Your task to perform on an android device: change keyboard looks Image 0: 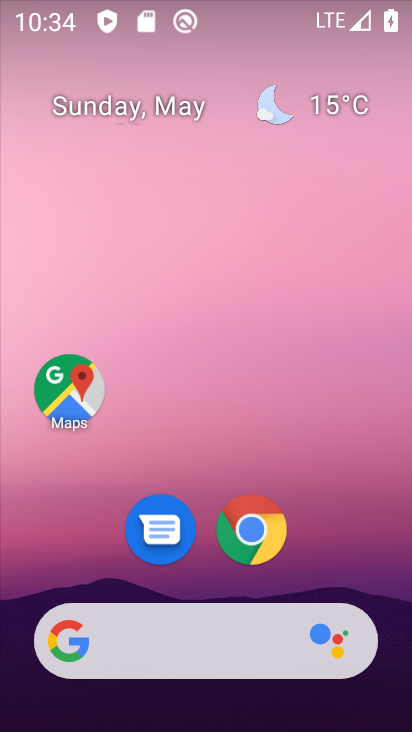
Step 0: drag from (246, 564) to (269, 26)
Your task to perform on an android device: change keyboard looks Image 1: 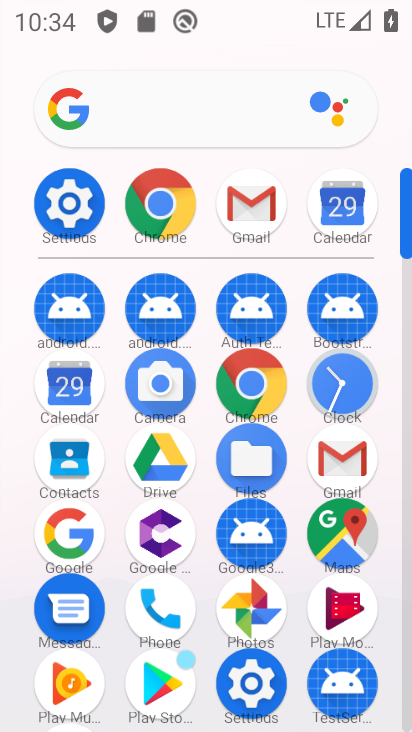
Step 1: click (53, 213)
Your task to perform on an android device: change keyboard looks Image 2: 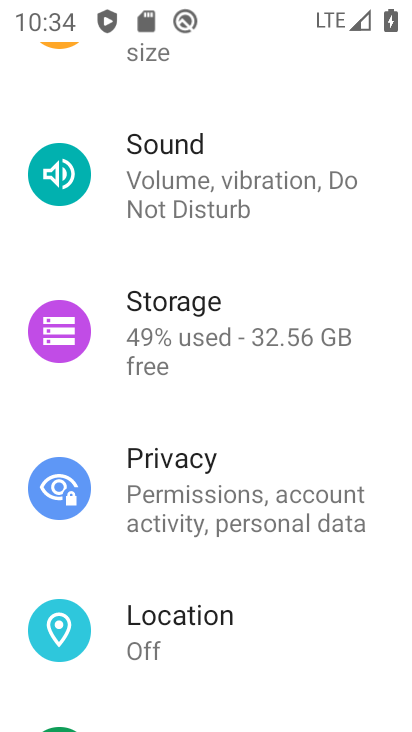
Step 2: drag from (155, 474) to (178, 99)
Your task to perform on an android device: change keyboard looks Image 3: 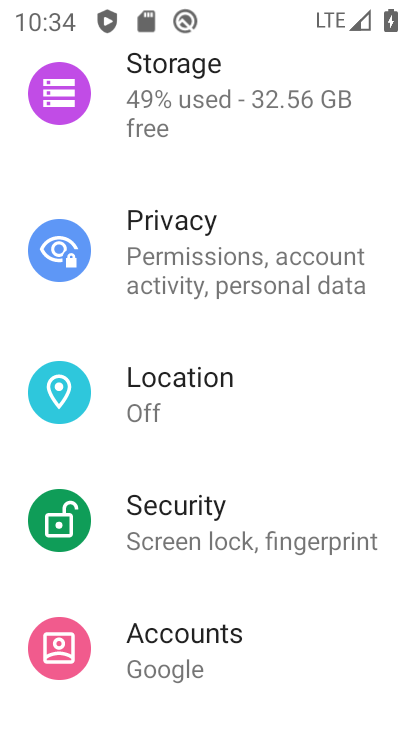
Step 3: drag from (156, 623) to (195, 68)
Your task to perform on an android device: change keyboard looks Image 4: 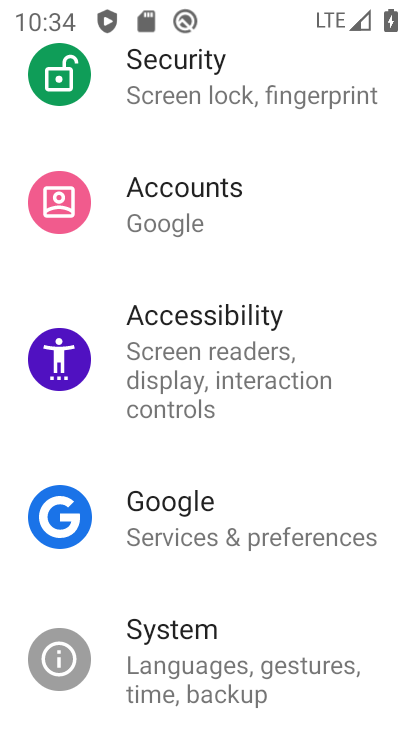
Step 4: click (187, 660)
Your task to perform on an android device: change keyboard looks Image 5: 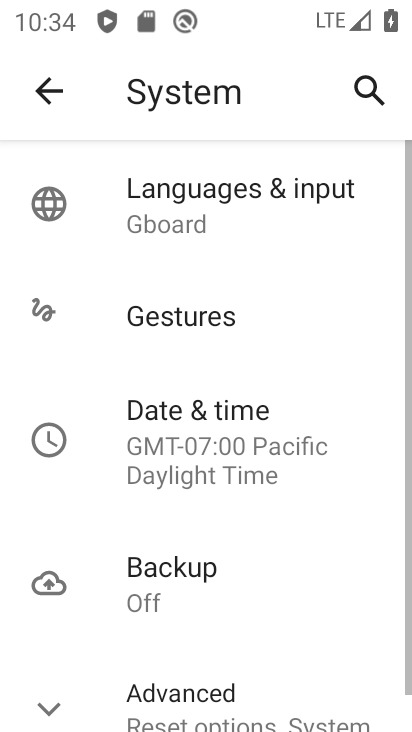
Step 5: click (181, 182)
Your task to perform on an android device: change keyboard looks Image 6: 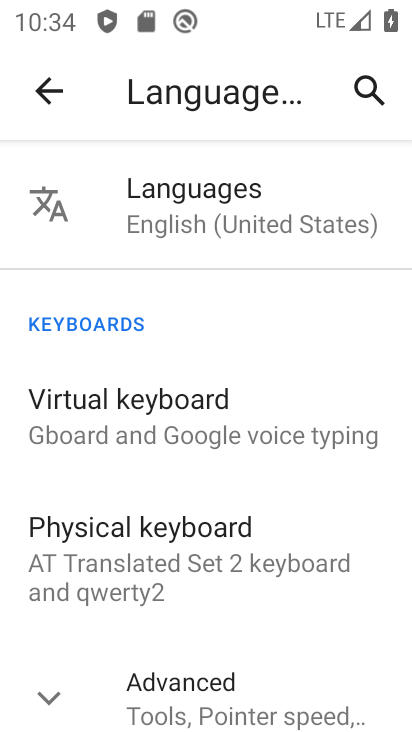
Step 6: click (174, 408)
Your task to perform on an android device: change keyboard looks Image 7: 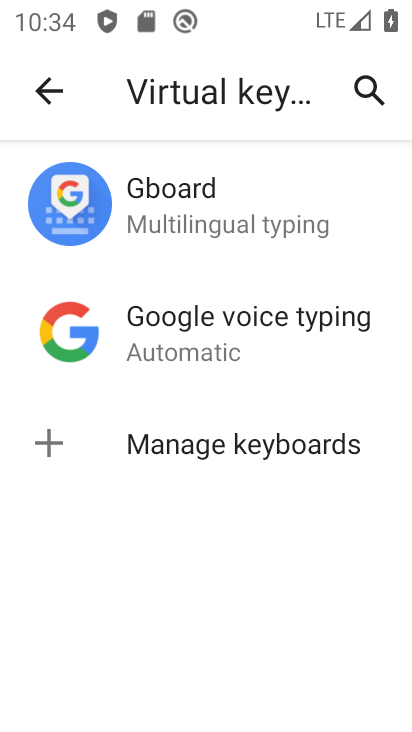
Step 7: click (209, 207)
Your task to perform on an android device: change keyboard looks Image 8: 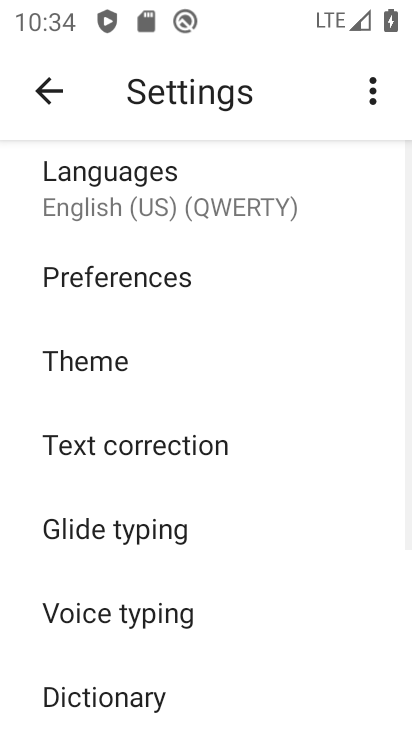
Step 8: click (84, 330)
Your task to perform on an android device: change keyboard looks Image 9: 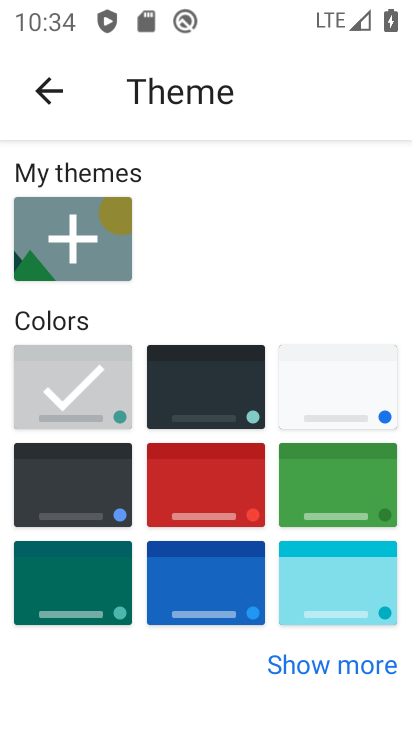
Step 9: click (217, 494)
Your task to perform on an android device: change keyboard looks Image 10: 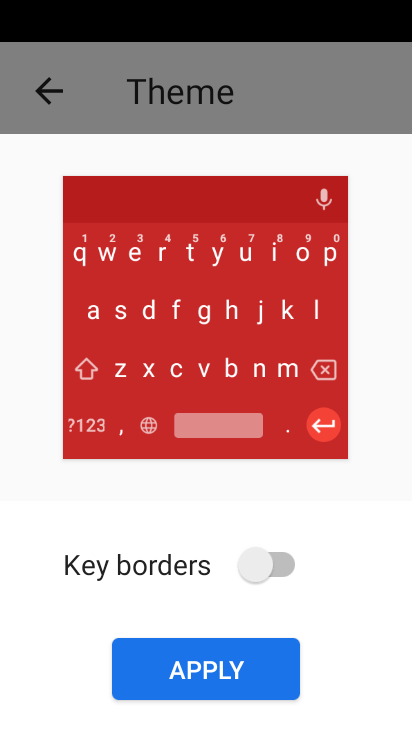
Step 10: click (215, 660)
Your task to perform on an android device: change keyboard looks Image 11: 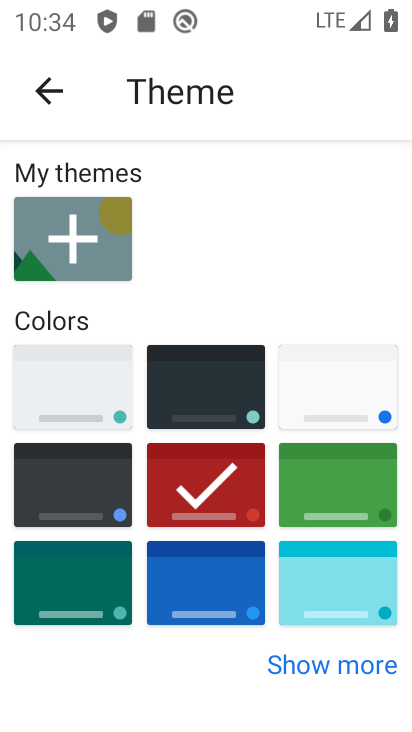
Step 11: task complete